Your task to perform on an android device: turn off translation in the chrome app Image 0: 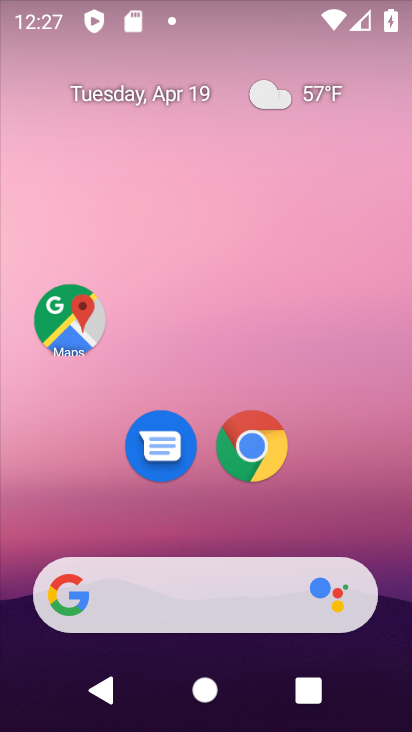
Step 0: click (264, 445)
Your task to perform on an android device: turn off translation in the chrome app Image 1: 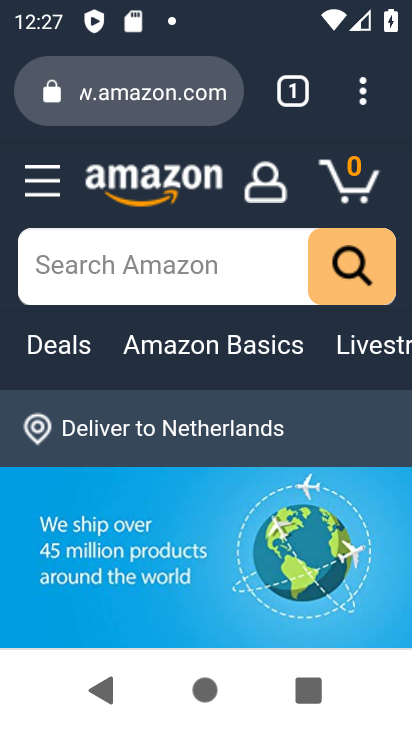
Step 1: click (364, 93)
Your task to perform on an android device: turn off translation in the chrome app Image 2: 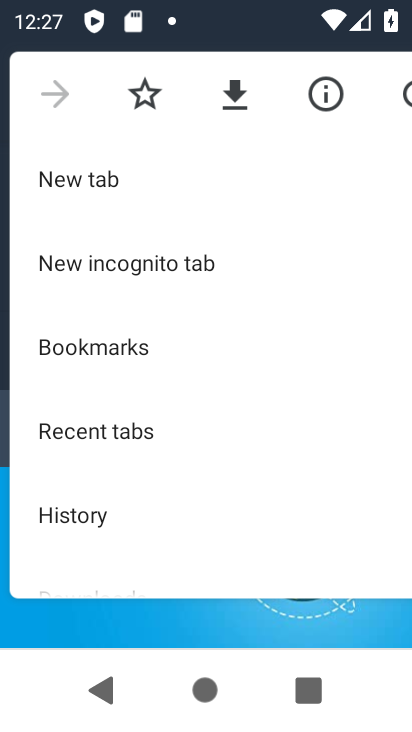
Step 2: drag from (253, 484) to (259, 153)
Your task to perform on an android device: turn off translation in the chrome app Image 3: 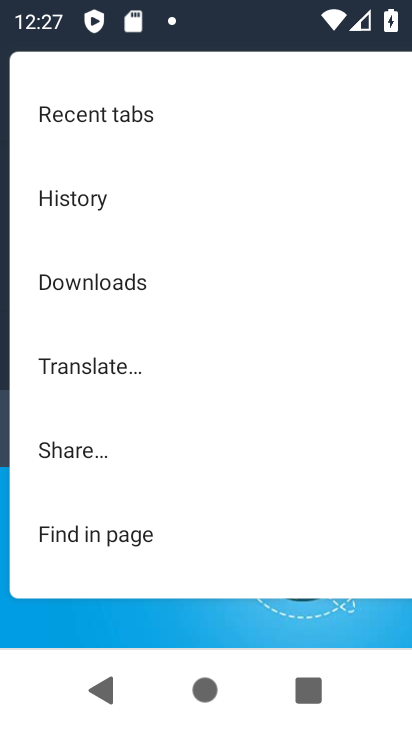
Step 3: click (132, 362)
Your task to perform on an android device: turn off translation in the chrome app Image 4: 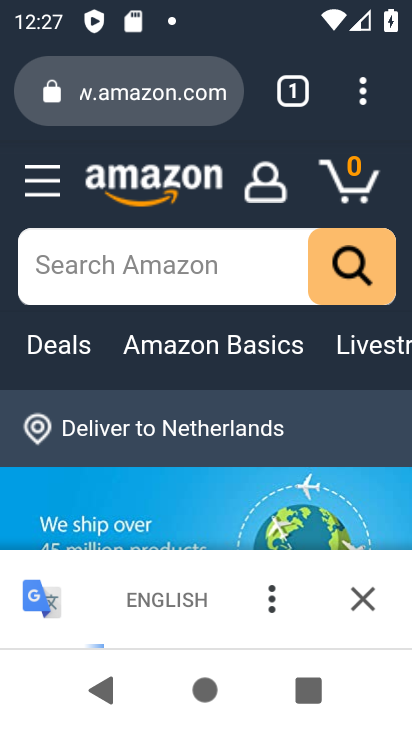
Step 4: click (365, 596)
Your task to perform on an android device: turn off translation in the chrome app Image 5: 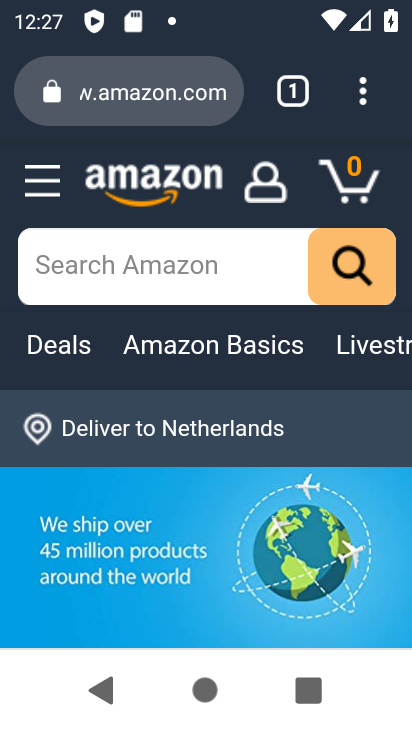
Step 5: click (366, 94)
Your task to perform on an android device: turn off translation in the chrome app Image 6: 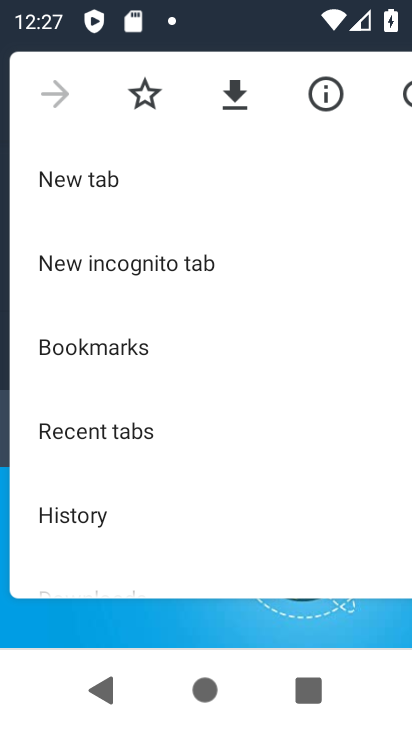
Step 6: drag from (254, 458) to (278, 167)
Your task to perform on an android device: turn off translation in the chrome app Image 7: 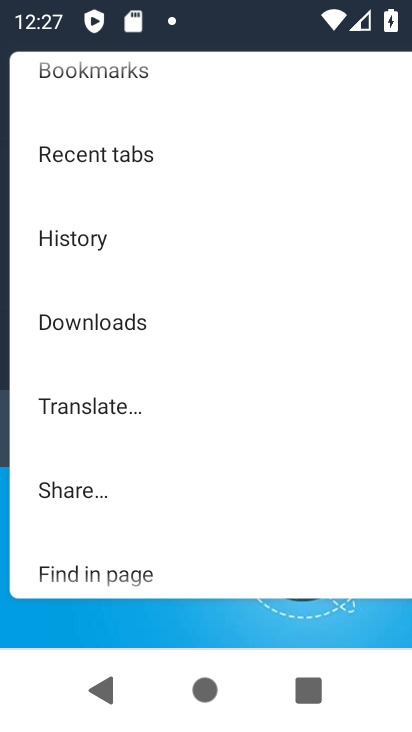
Step 7: drag from (214, 515) to (210, 159)
Your task to perform on an android device: turn off translation in the chrome app Image 8: 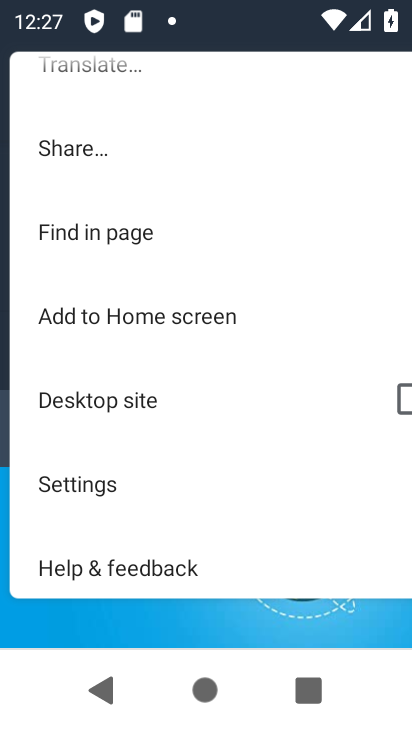
Step 8: click (133, 478)
Your task to perform on an android device: turn off translation in the chrome app Image 9: 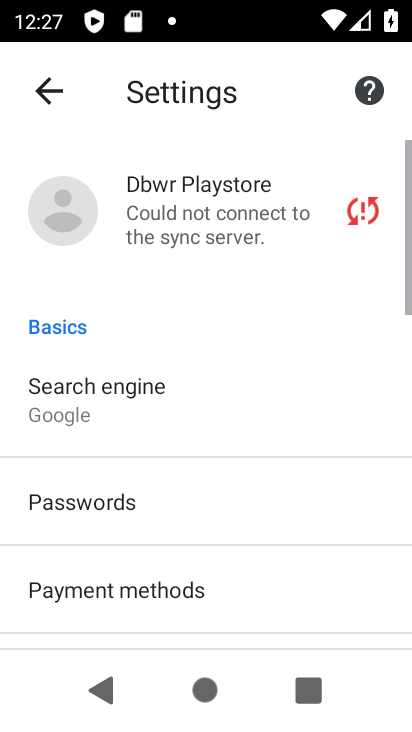
Step 9: drag from (266, 541) to (271, 163)
Your task to perform on an android device: turn off translation in the chrome app Image 10: 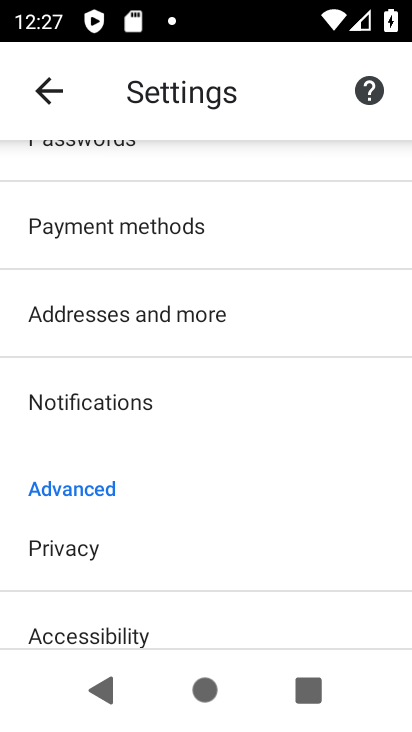
Step 10: drag from (182, 515) to (191, 200)
Your task to perform on an android device: turn off translation in the chrome app Image 11: 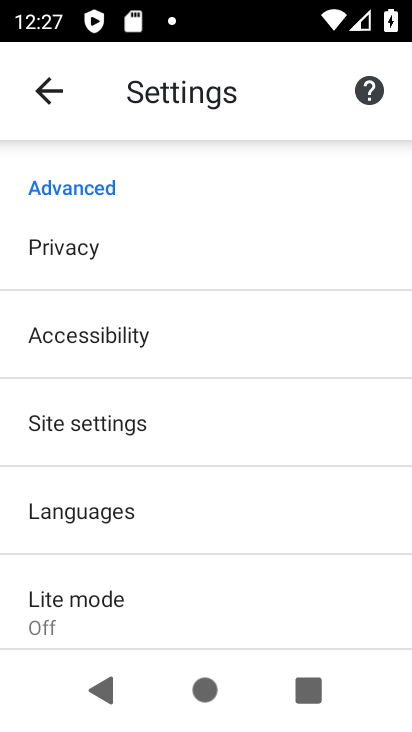
Step 11: click (123, 514)
Your task to perform on an android device: turn off translation in the chrome app Image 12: 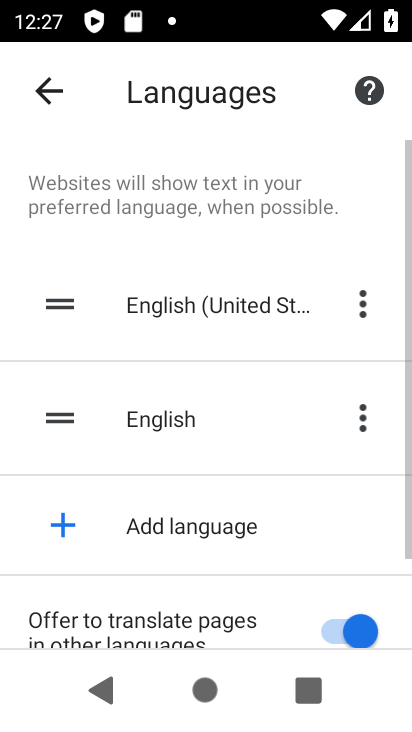
Step 12: drag from (290, 519) to (328, 200)
Your task to perform on an android device: turn off translation in the chrome app Image 13: 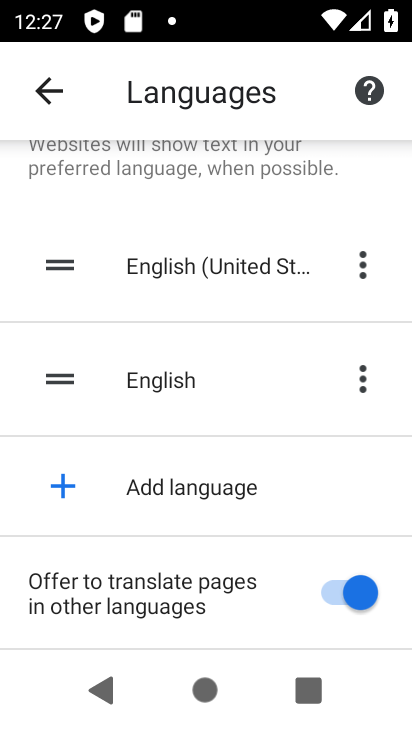
Step 13: click (337, 589)
Your task to perform on an android device: turn off translation in the chrome app Image 14: 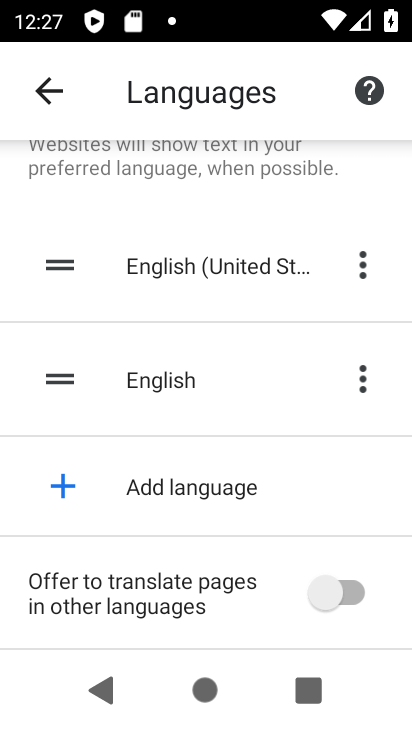
Step 14: task complete